Your task to perform on an android device: allow cookies in the chrome app Image 0: 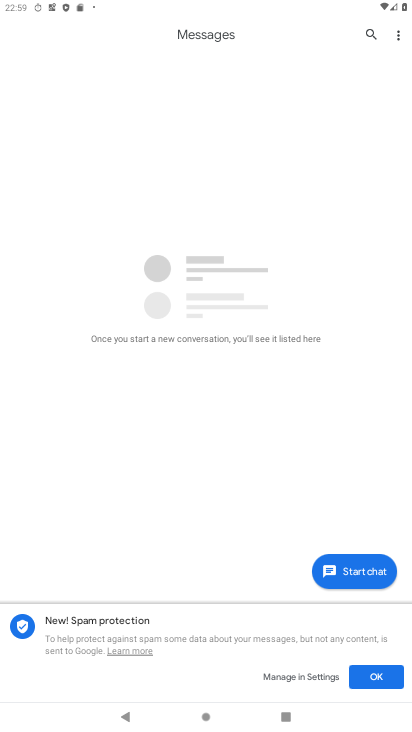
Step 0: press home button
Your task to perform on an android device: allow cookies in the chrome app Image 1: 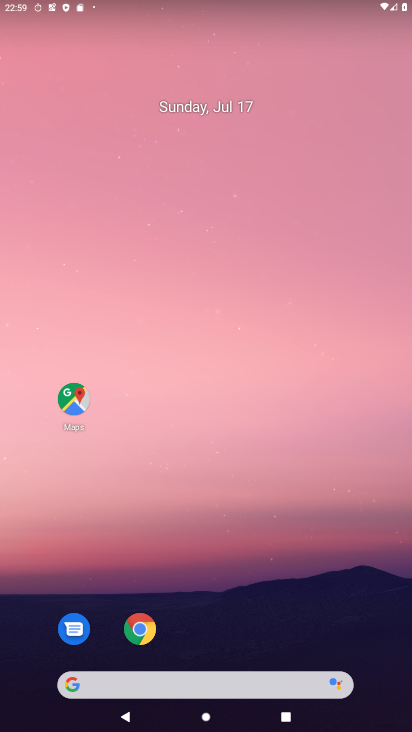
Step 1: drag from (234, 726) to (223, 174)
Your task to perform on an android device: allow cookies in the chrome app Image 2: 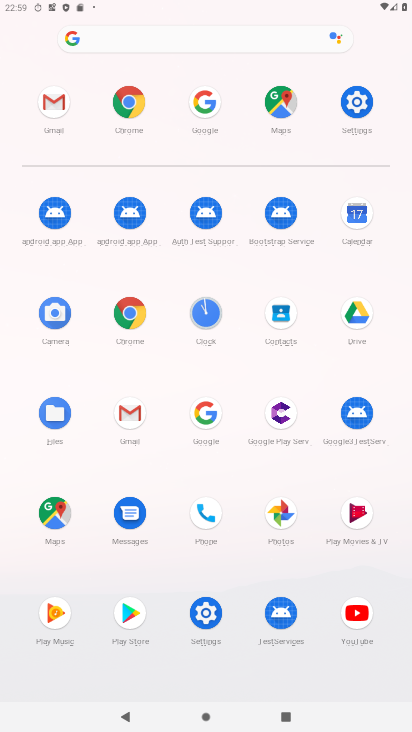
Step 2: click (133, 311)
Your task to perform on an android device: allow cookies in the chrome app Image 3: 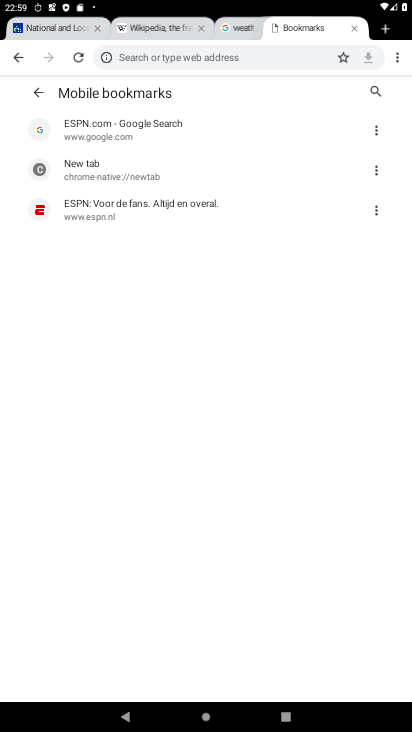
Step 3: click (398, 55)
Your task to perform on an android device: allow cookies in the chrome app Image 4: 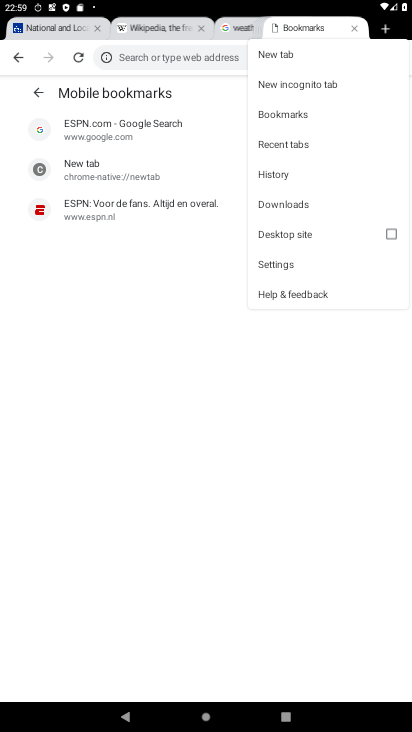
Step 4: click (274, 257)
Your task to perform on an android device: allow cookies in the chrome app Image 5: 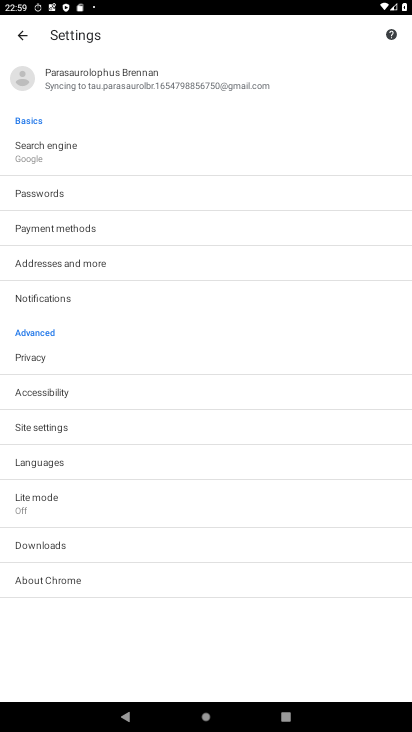
Step 5: click (36, 429)
Your task to perform on an android device: allow cookies in the chrome app Image 6: 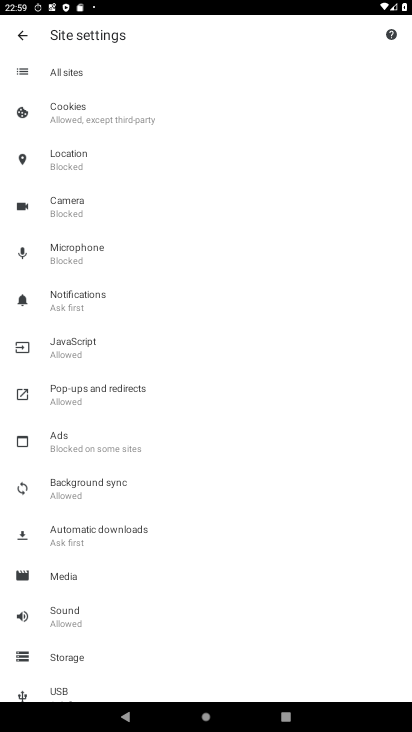
Step 6: click (79, 108)
Your task to perform on an android device: allow cookies in the chrome app Image 7: 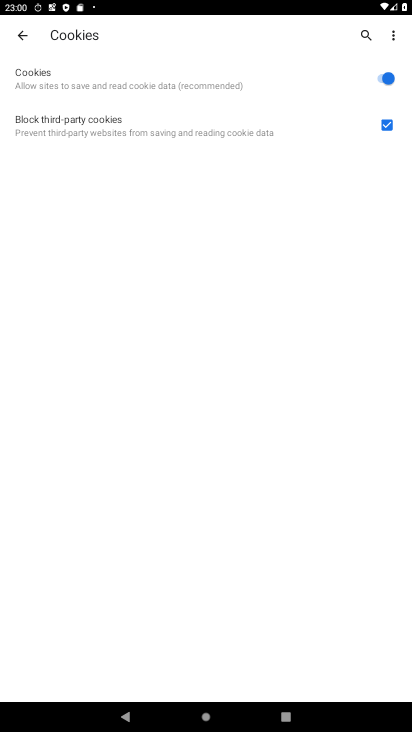
Step 7: task complete